Your task to perform on an android device: Empty the shopping cart on ebay.com. Search for "razer blackwidow" on ebay.com, select the first entry, add it to the cart, then select checkout. Image 0: 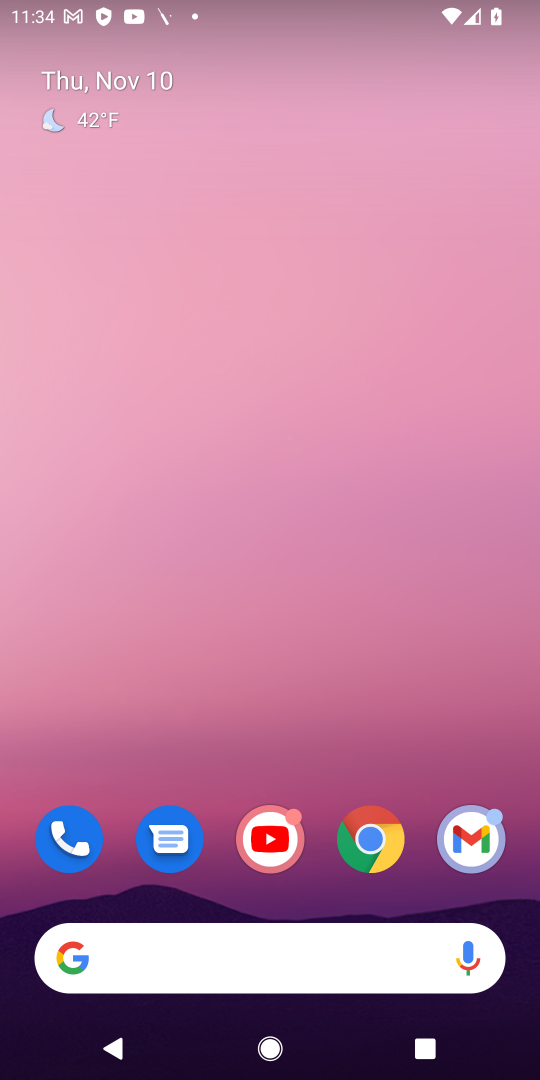
Step 0: click (363, 827)
Your task to perform on an android device: Empty the shopping cart on ebay.com. Search for "razer blackwidow" on ebay.com, select the first entry, add it to the cart, then select checkout. Image 1: 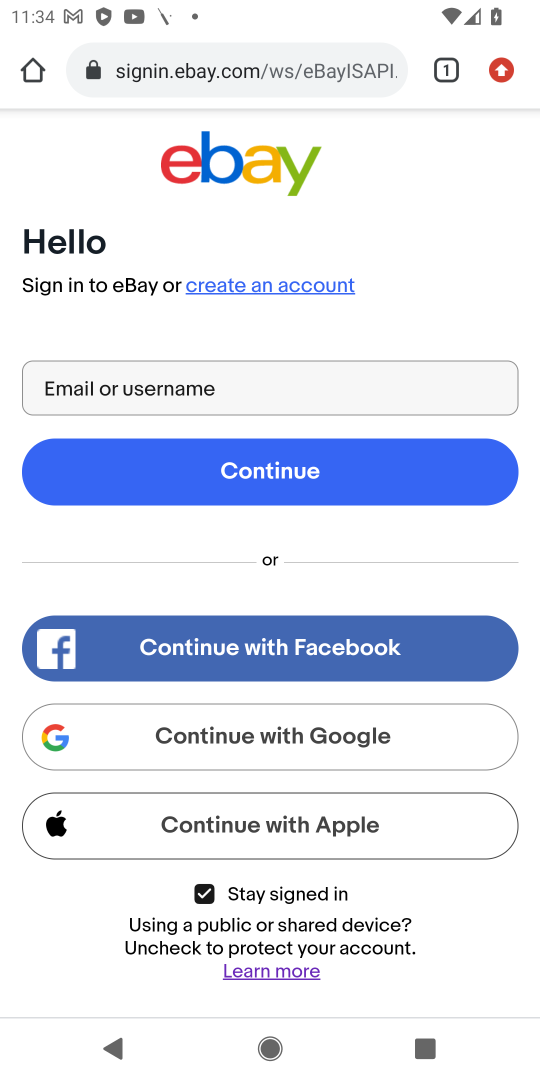
Step 1: press back button
Your task to perform on an android device: Empty the shopping cart on ebay.com. Search for "razer blackwidow" on ebay.com, select the first entry, add it to the cart, then select checkout. Image 2: 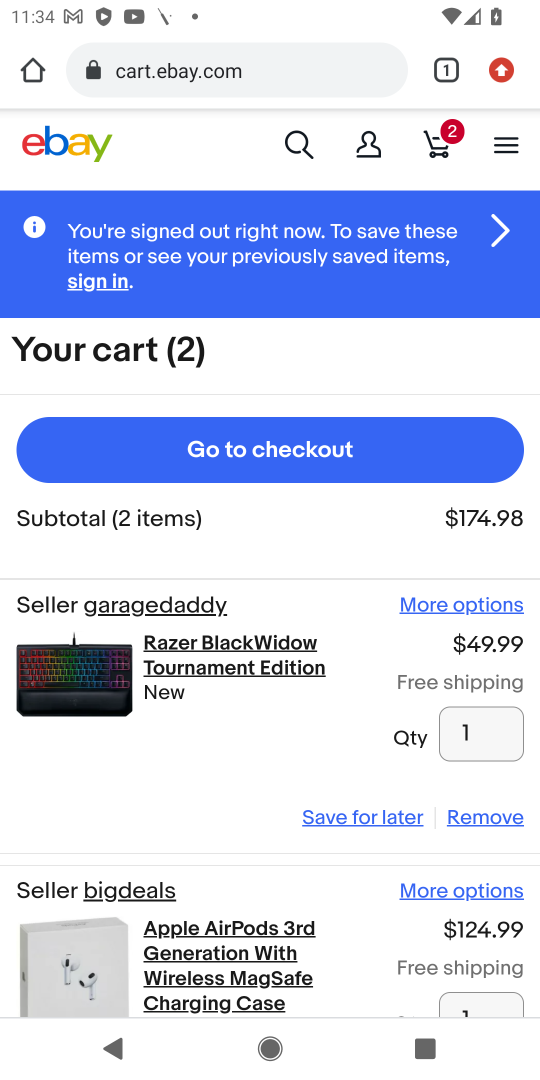
Step 2: click (294, 138)
Your task to perform on an android device: Empty the shopping cart on ebay.com. Search for "razer blackwidow" on ebay.com, select the first entry, add it to the cart, then select checkout. Image 3: 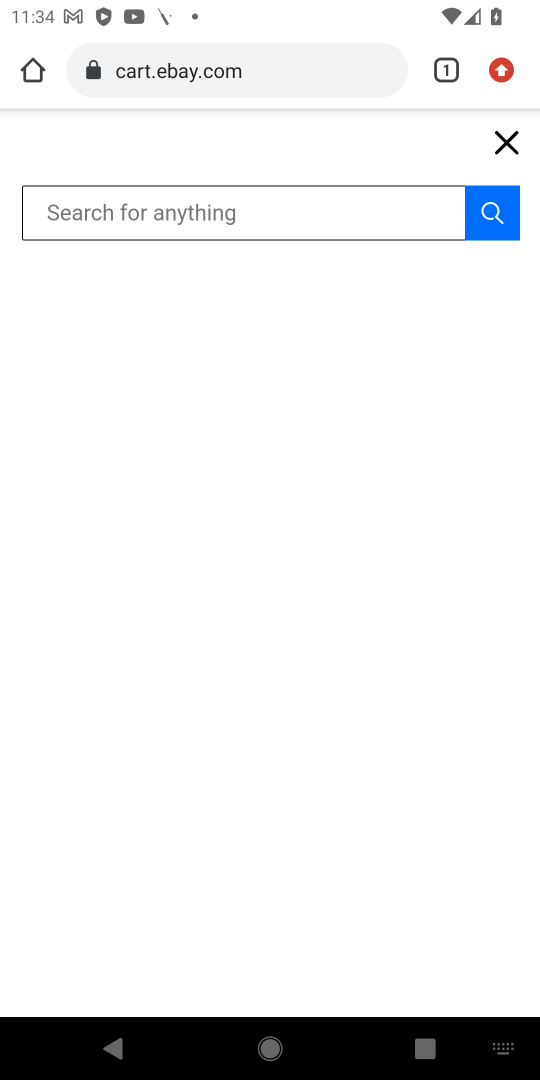
Step 3: click (510, 134)
Your task to perform on an android device: Empty the shopping cart on ebay.com. Search for "razer blackwidow" on ebay.com, select the first entry, add it to the cart, then select checkout. Image 4: 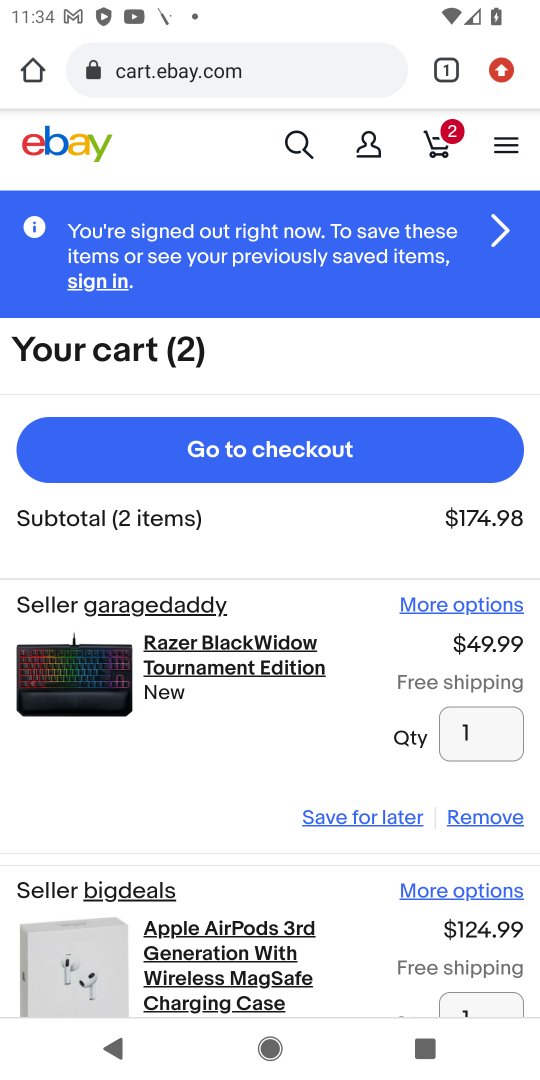
Step 4: click (436, 138)
Your task to perform on an android device: Empty the shopping cart on ebay.com. Search for "razer blackwidow" on ebay.com, select the first entry, add it to the cart, then select checkout. Image 5: 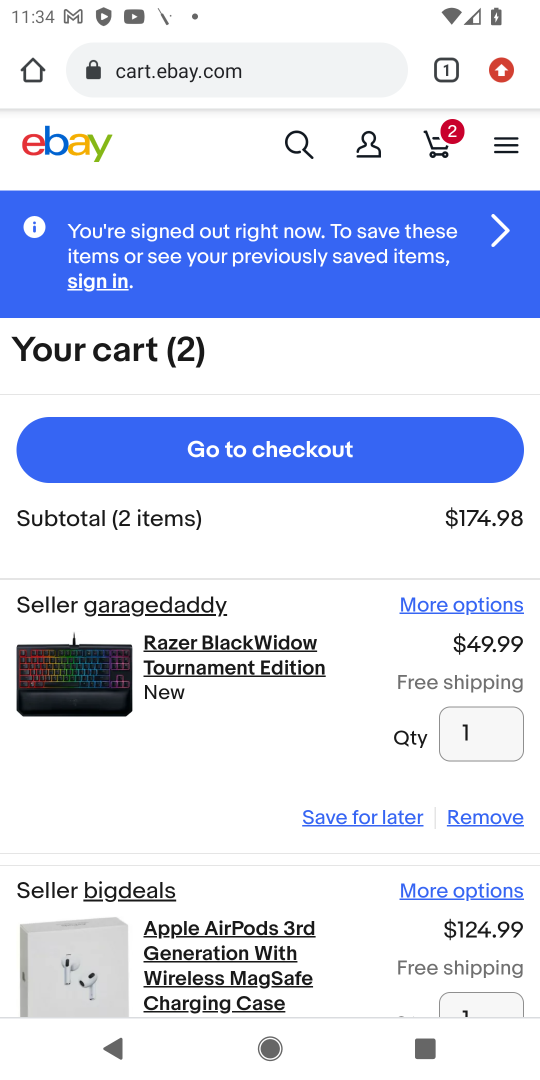
Step 5: click (454, 813)
Your task to perform on an android device: Empty the shopping cart on ebay.com. Search for "razer blackwidow" on ebay.com, select the first entry, add it to the cart, then select checkout. Image 6: 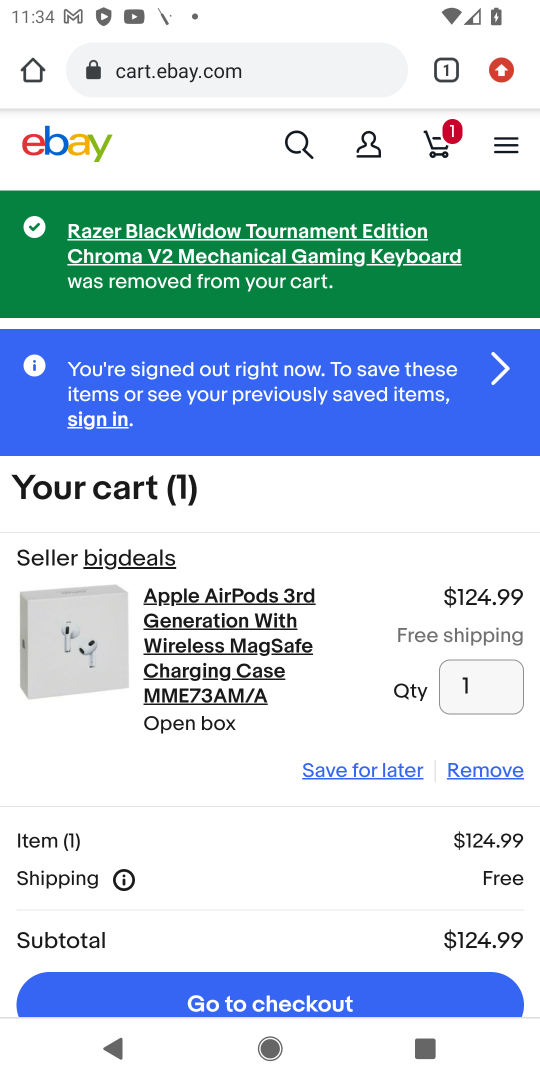
Step 6: click (474, 769)
Your task to perform on an android device: Empty the shopping cart on ebay.com. Search for "razer blackwidow" on ebay.com, select the first entry, add it to the cart, then select checkout. Image 7: 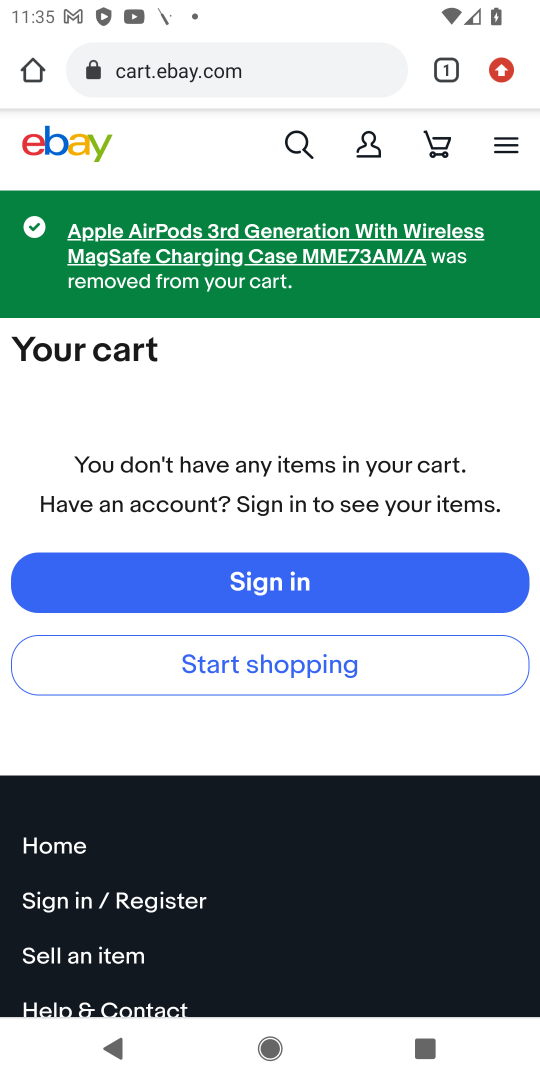
Step 7: click (287, 150)
Your task to perform on an android device: Empty the shopping cart on ebay.com. Search for "razer blackwidow" on ebay.com, select the first entry, add it to the cart, then select checkout. Image 8: 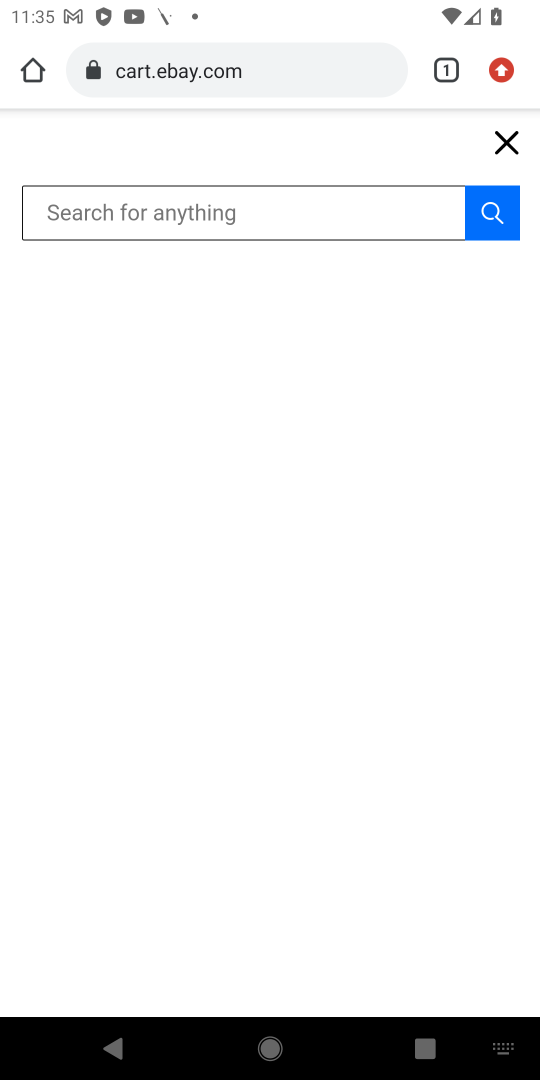
Step 8: type "razer blackwidow"
Your task to perform on an android device: Empty the shopping cart on ebay.com. Search for "razer blackwidow" on ebay.com, select the first entry, add it to the cart, then select checkout. Image 9: 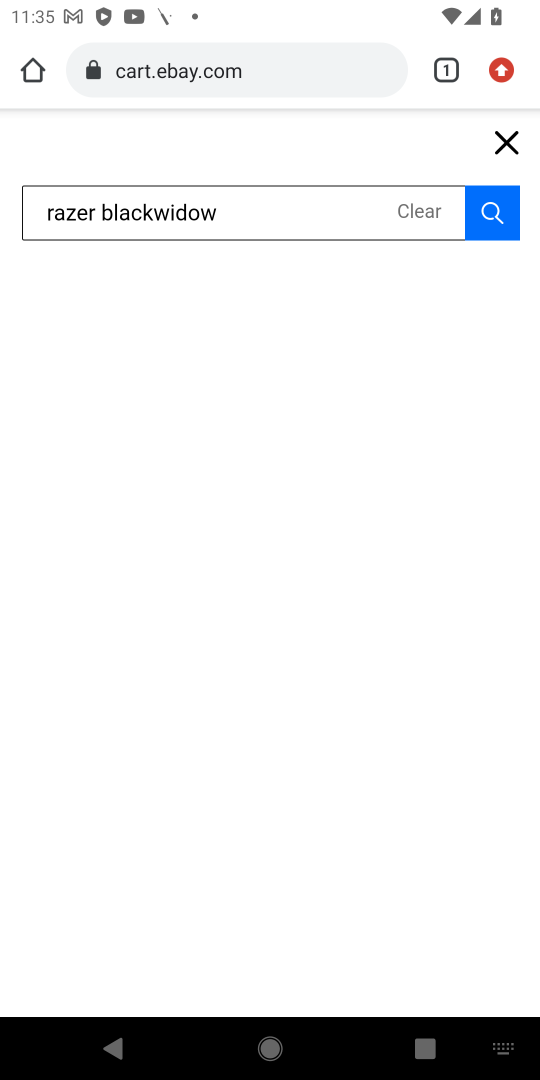
Step 9: click (284, 221)
Your task to perform on an android device: Empty the shopping cart on ebay.com. Search for "razer blackwidow" on ebay.com, select the first entry, add it to the cart, then select checkout. Image 10: 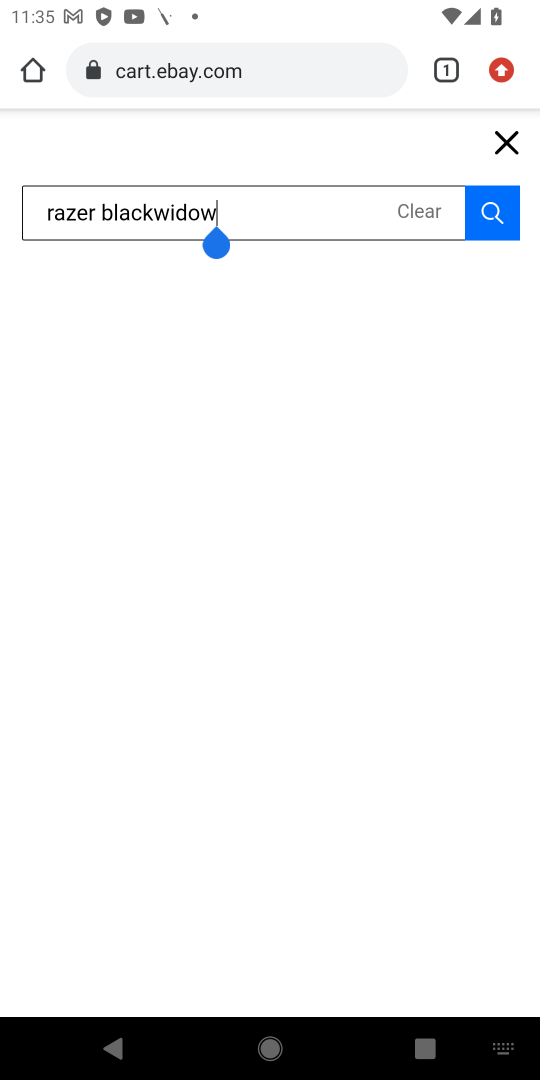
Step 10: click (284, 221)
Your task to perform on an android device: Empty the shopping cart on ebay.com. Search for "razer blackwidow" on ebay.com, select the first entry, add it to the cart, then select checkout. Image 11: 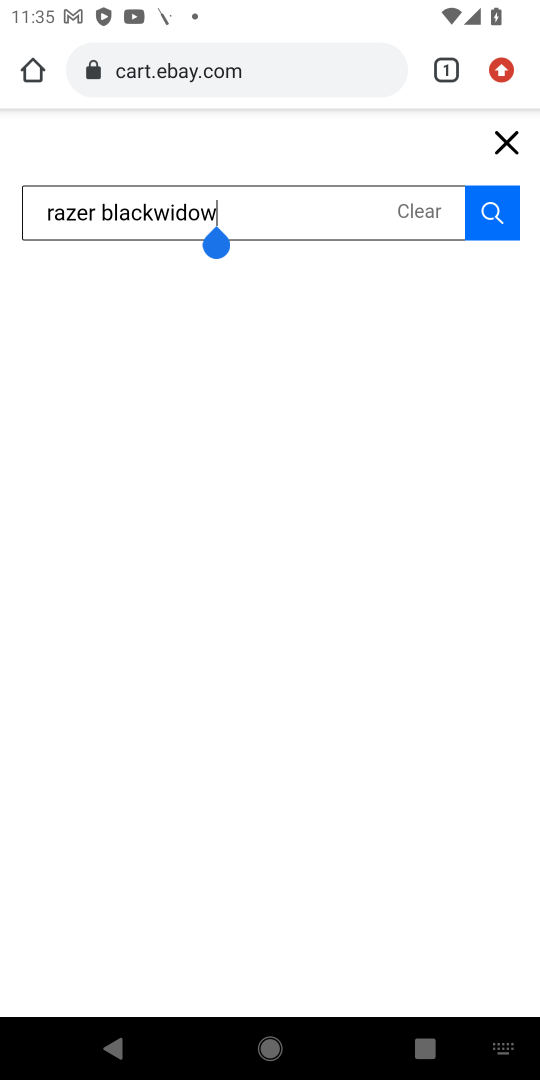
Step 11: click (406, 285)
Your task to perform on an android device: Empty the shopping cart on ebay.com. Search for "razer blackwidow" on ebay.com, select the first entry, add it to the cart, then select checkout. Image 12: 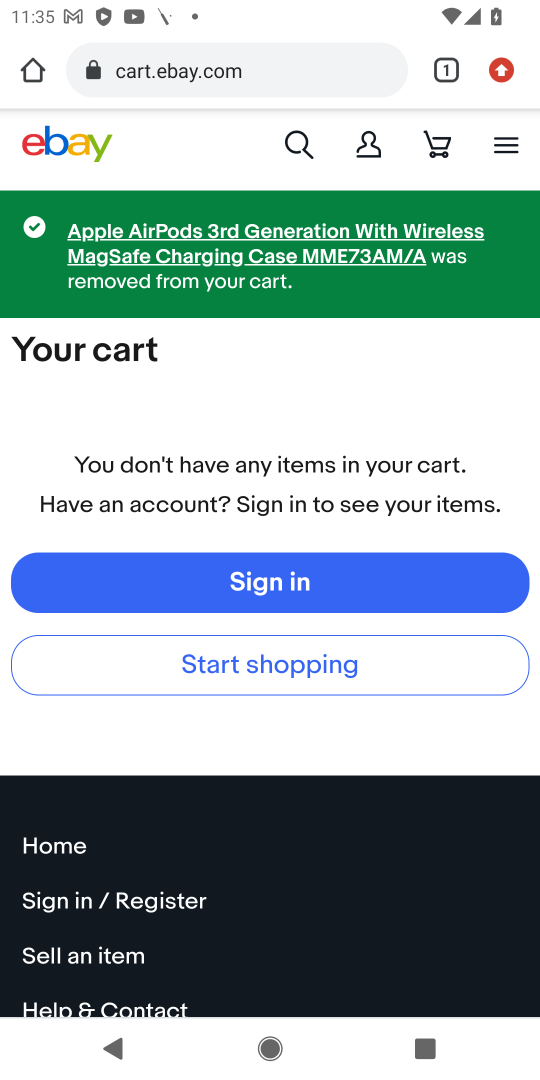
Step 12: click (286, 143)
Your task to perform on an android device: Empty the shopping cart on ebay.com. Search for "razer blackwidow" on ebay.com, select the first entry, add it to the cart, then select checkout. Image 13: 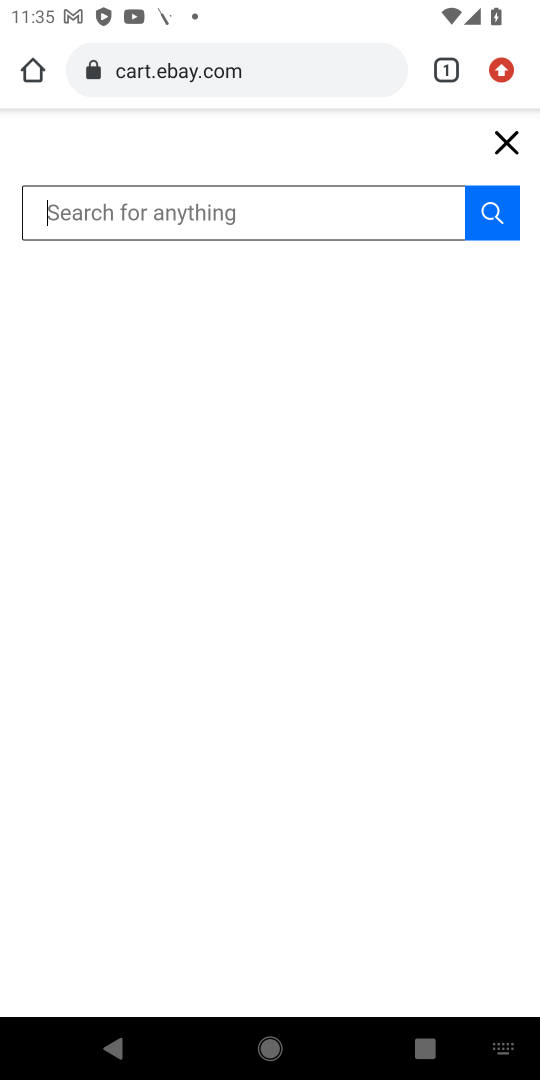
Step 13: click (255, 209)
Your task to perform on an android device: Empty the shopping cart on ebay.com. Search for "razer blackwidow" on ebay.com, select the first entry, add it to the cart, then select checkout. Image 14: 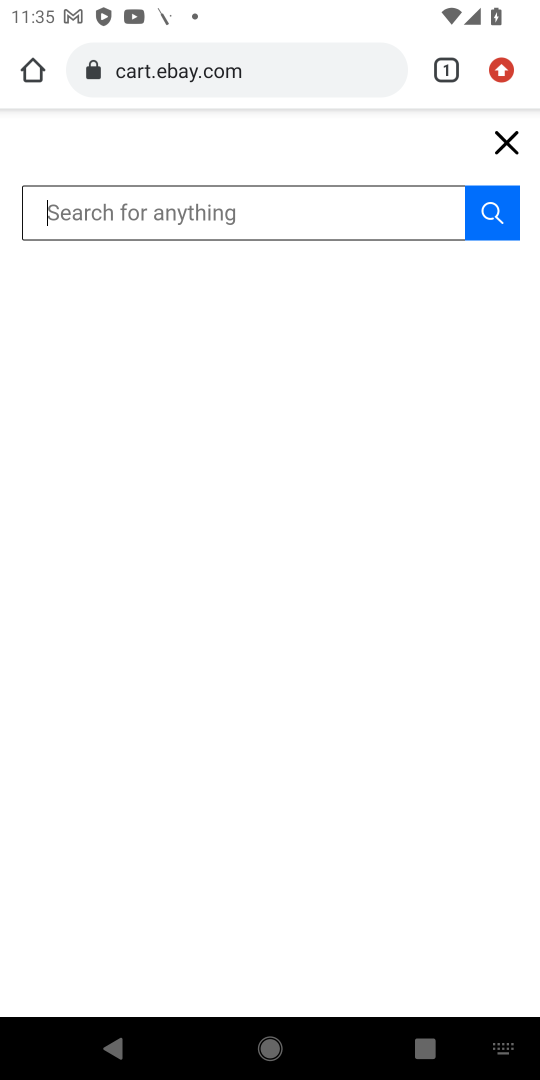
Step 14: type "razer blackwidow"
Your task to perform on an android device: Empty the shopping cart on ebay.com. Search for "razer blackwidow" on ebay.com, select the first entry, add it to the cart, then select checkout. Image 15: 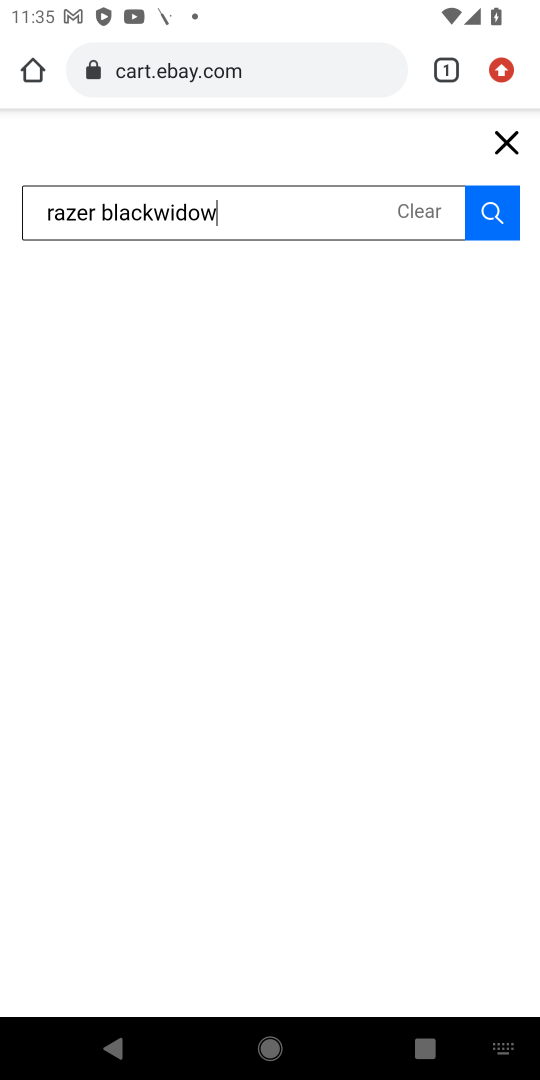
Step 15: press enter
Your task to perform on an android device: Empty the shopping cart on ebay.com. Search for "razer blackwidow" on ebay.com, select the first entry, add it to the cart, then select checkout. Image 16: 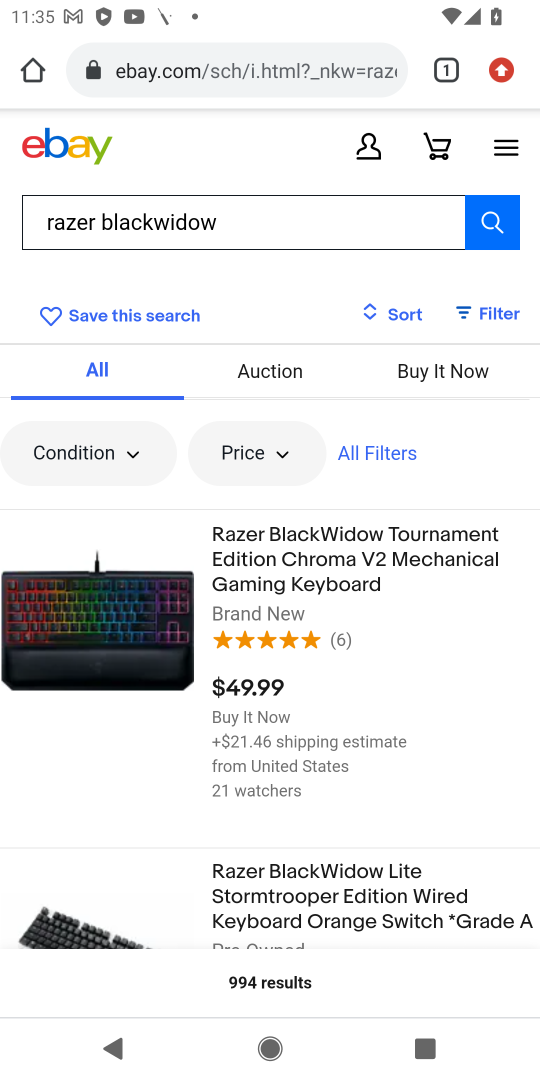
Step 16: click (118, 602)
Your task to perform on an android device: Empty the shopping cart on ebay.com. Search for "razer blackwidow" on ebay.com, select the first entry, add it to the cart, then select checkout. Image 17: 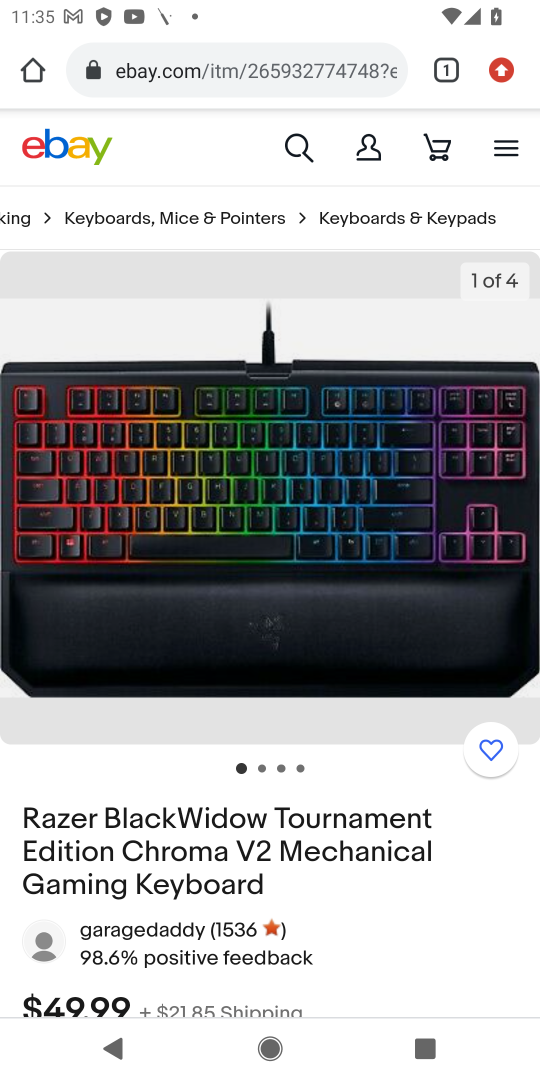
Step 17: drag from (457, 792) to (397, 332)
Your task to perform on an android device: Empty the shopping cart on ebay.com. Search for "razer blackwidow" on ebay.com, select the first entry, add it to the cart, then select checkout. Image 18: 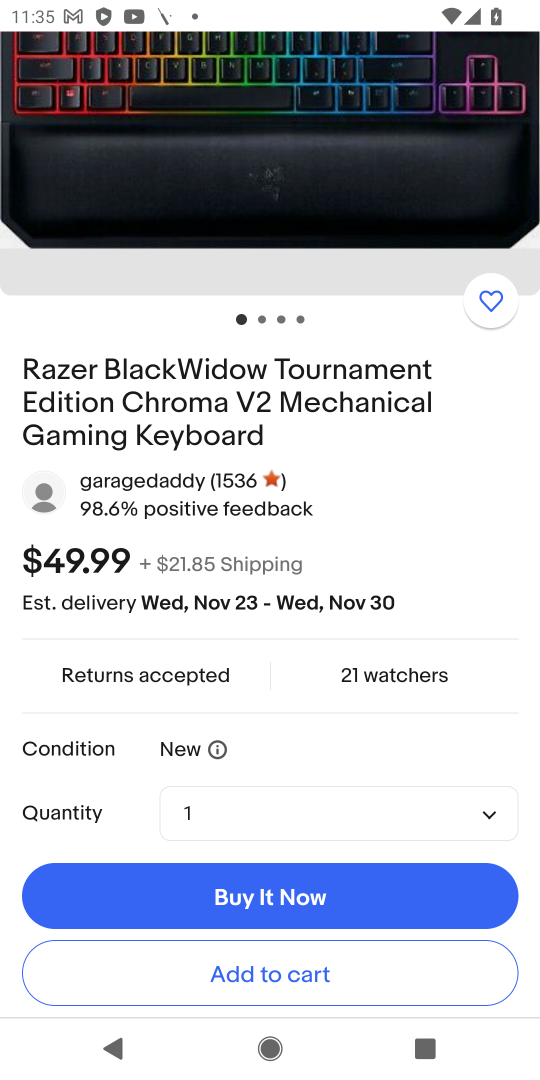
Step 18: click (269, 978)
Your task to perform on an android device: Empty the shopping cart on ebay.com. Search for "razer blackwidow" on ebay.com, select the first entry, add it to the cart, then select checkout. Image 19: 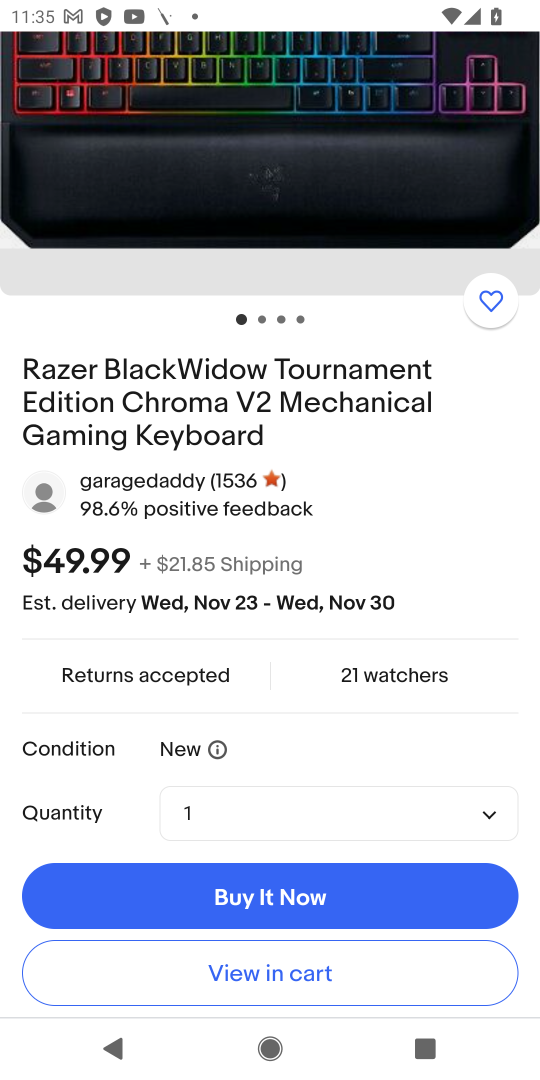
Step 19: click (269, 978)
Your task to perform on an android device: Empty the shopping cart on ebay.com. Search for "razer blackwidow" on ebay.com, select the first entry, add it to the cart, then select checkout. Image 20: 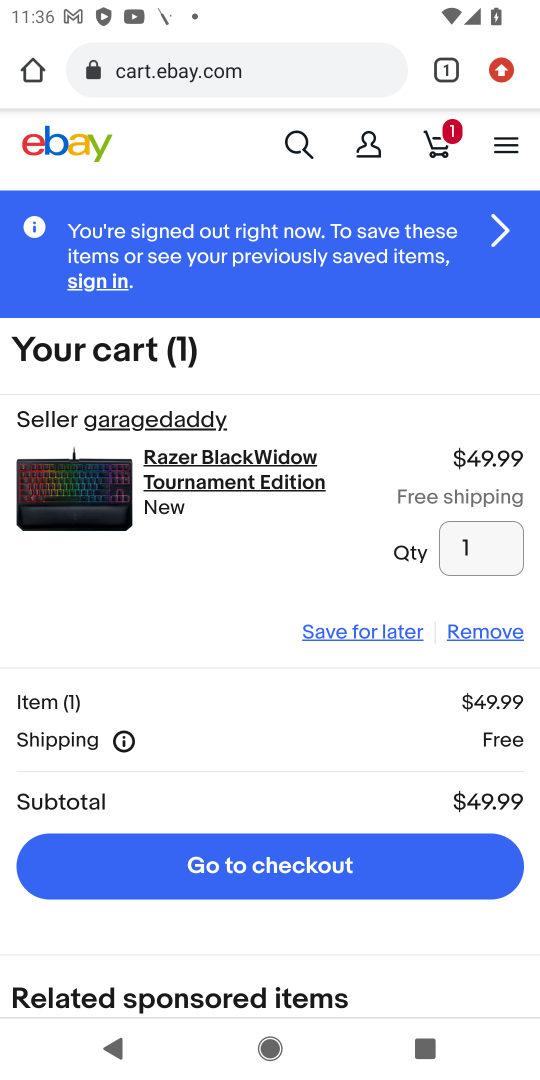
Step 20: click (300, 862)
Your task to perform on an android device: Empty the shopping cart on ebay.com. Search for "razer blackwidow" on ebay.com, select the first entry, add it to the cart, then select checkout. Image 21: 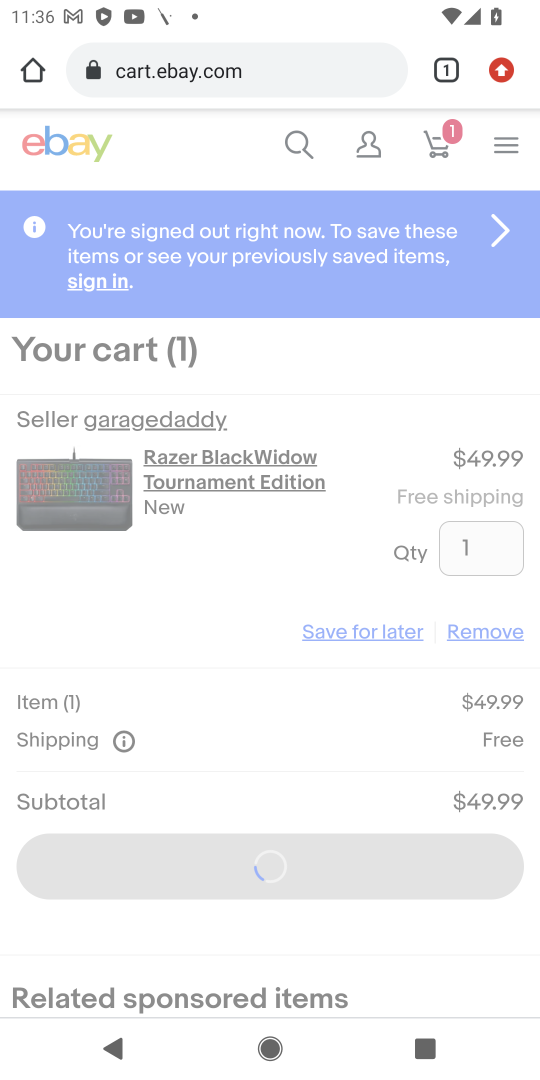
Step 21: task complete